Your task to perform on an android device: snooze an email in the gmail app Image 0: 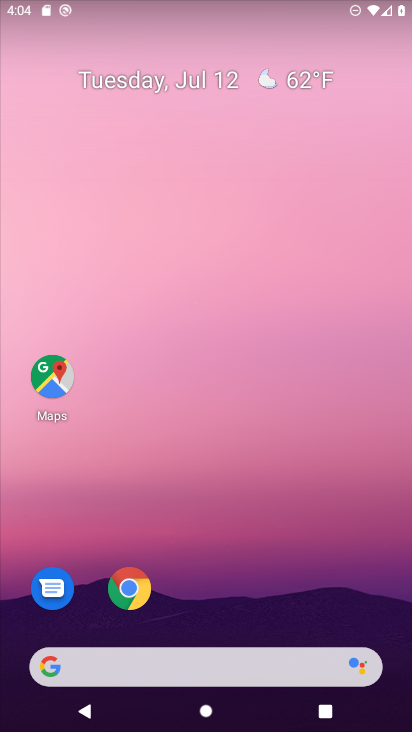
Step 0: drag from (210, 614) to (230, 7)
Your task to perform on an android device: snooze an email in the gmail app Image 1: 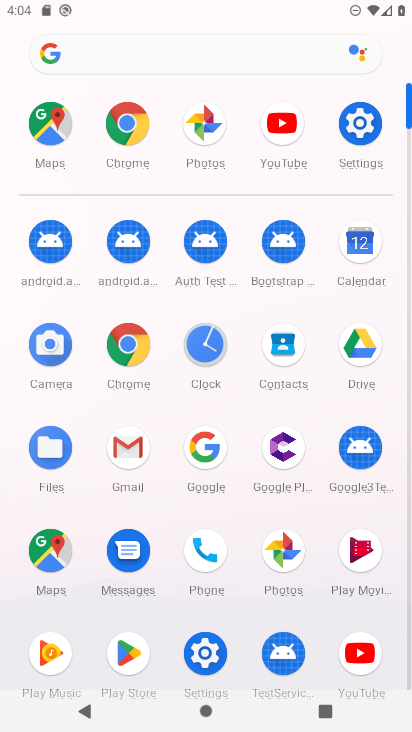
Step 1: click (131, 457)
Your task to perform on an android device: snooze an email in the gmail app Image 2: 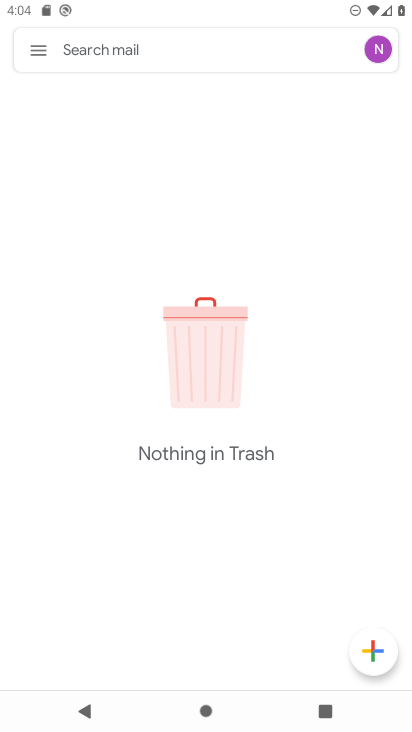
Step 2: click (29, 55)
Your task to perform on an android device: snooze an email in the gmail app Image 3: 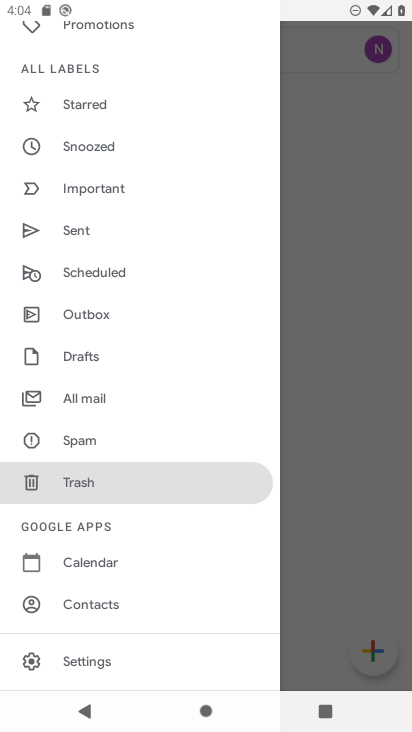
Step 3: drag from (108, 144) to (107, 606)
Your task to perform on an android device: snooze an email in the gmail app Image 4: 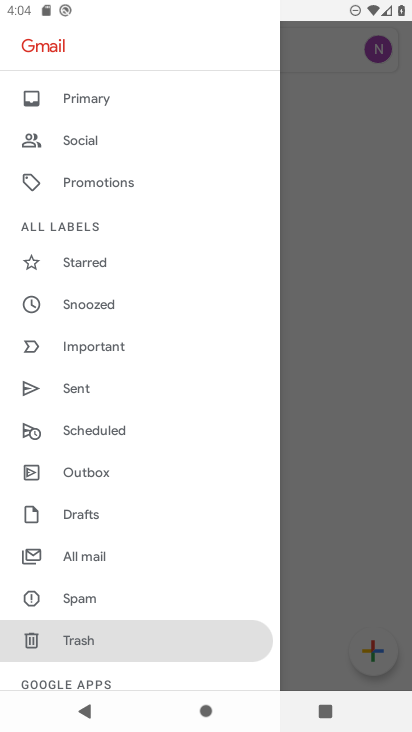
Step 4: click (101, 104)
Your task to perform on an android device: snooze an email in the gmail app Image 5: 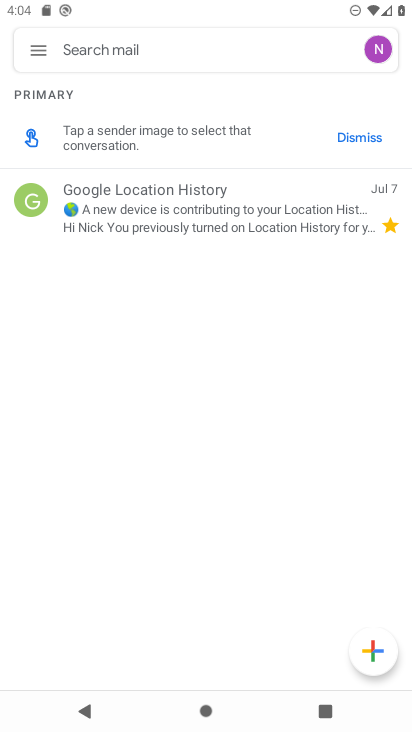
Step 5: click (35, 207)
Your task to perform on an android device: snooze an email in the gmail app Image 6: 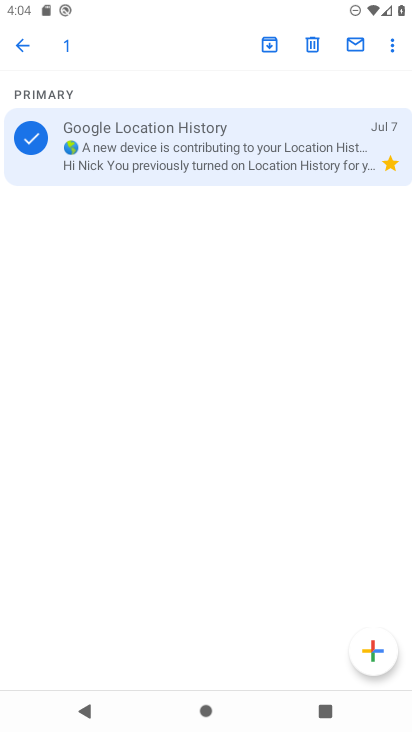
Step 6: click (391, 42)
Your task to perform on an android device: snooze an email in the gmail app Image 7: 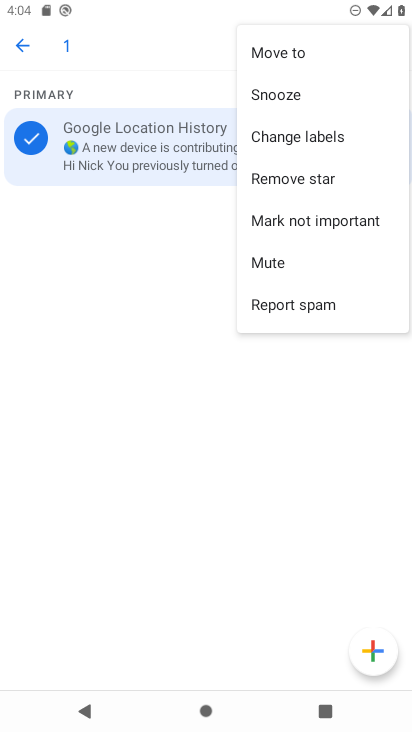
Step 7: click (294, 97)
Your task to perform on an android device: snooze an email in the gmail app Image 8: 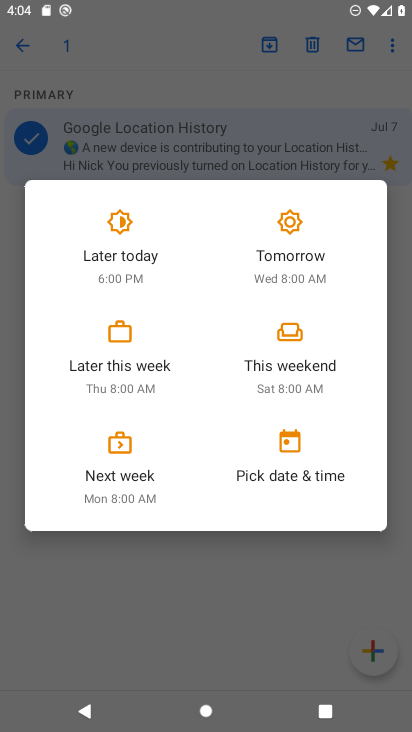
Step 8: click (128, 260)
Your task to perform on an android device: snooze an email in the gmail app Image 9: 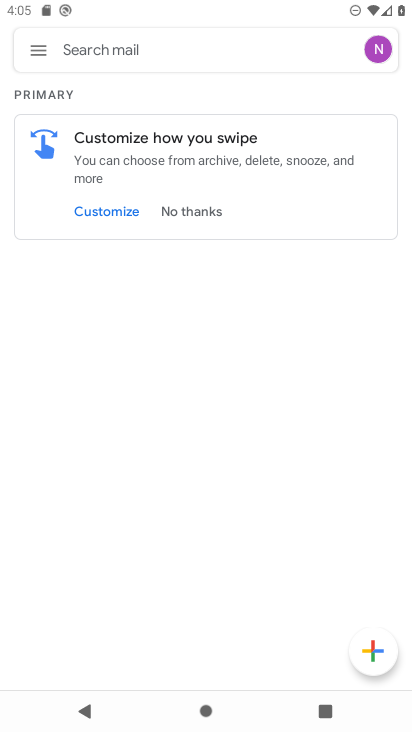
Step 9: task complete